Your task to perform on an android device: delete the emails in spam in the gmail app Image 0: 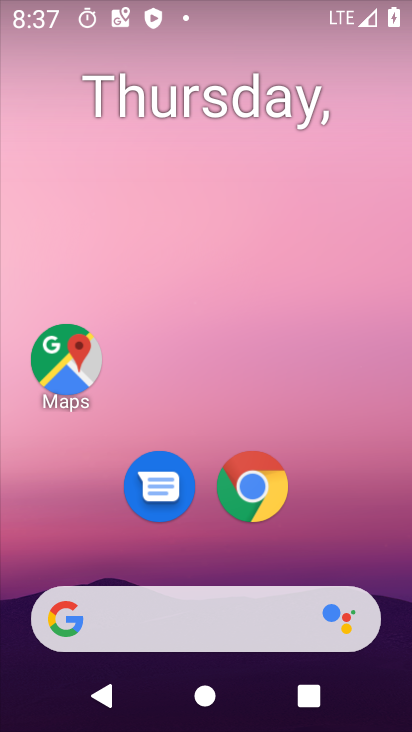
Step 0: drag from (247, 123) to (264, 69)
Your task to perform on an android device: delete the emails in spam in the gmail app Image 1: 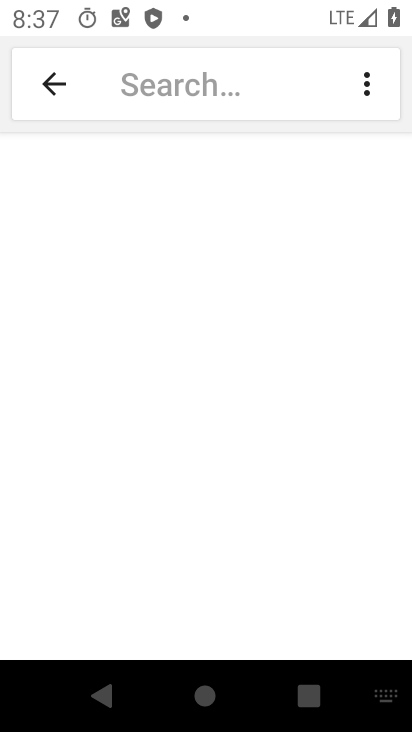
Step 1: press home button
Your task to perform on an android device: delete the emails in spam in the gmail app Image 2: 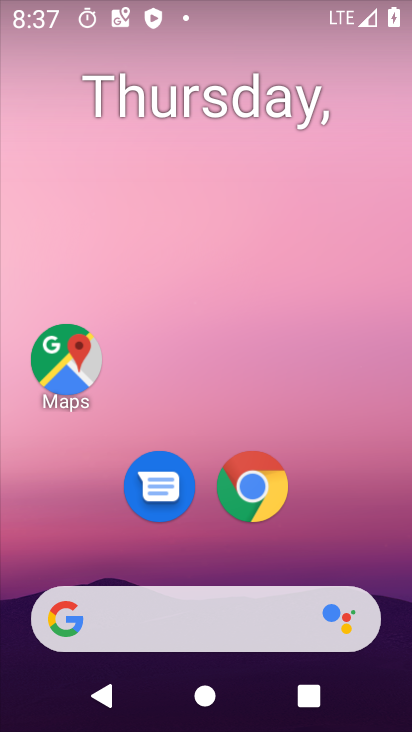
Step 2: drag from (214, 549) to (292, 112)
Your task to perform on an android device: delete the emails in spam in the gmail app Image 3: 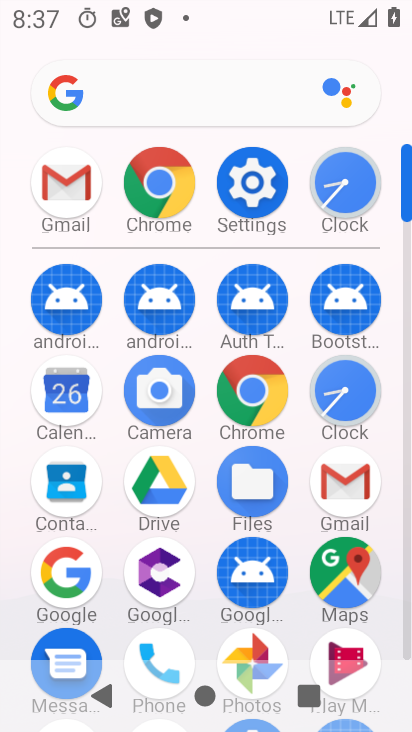
Step 3: click (362, 475)
Your task to perform on an android device: delete the emails in spam in the gmail app Image 4: 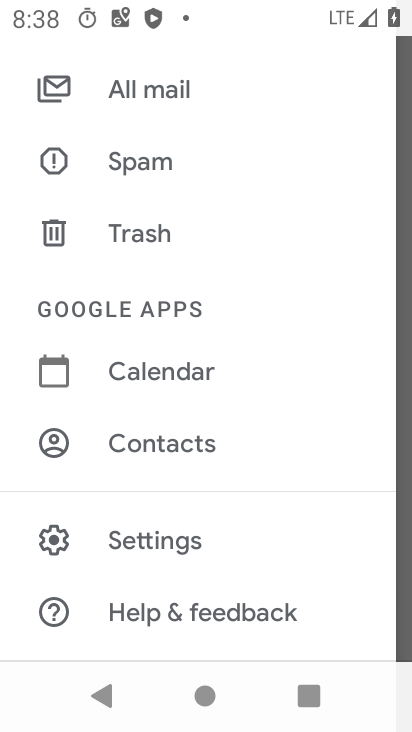
Step 4: press home button
Your task to perform on an android device: delete the emails in spam in the gmail app Image 5: 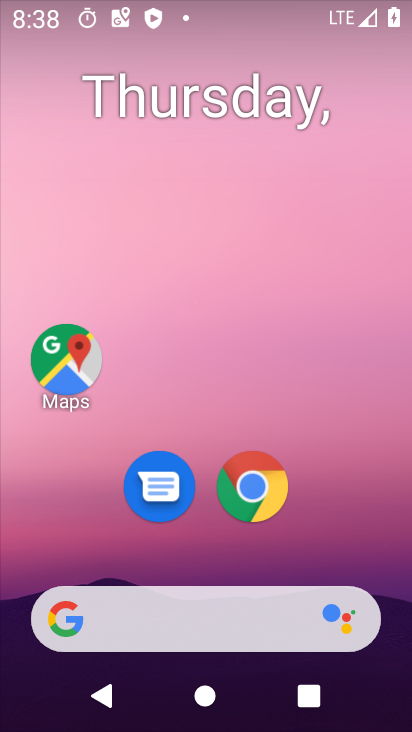
Step 5: drag from (186, 593) to (229, 125)
Your task to perform on an android device: delete the emails in spam in the gmail app Image 6: 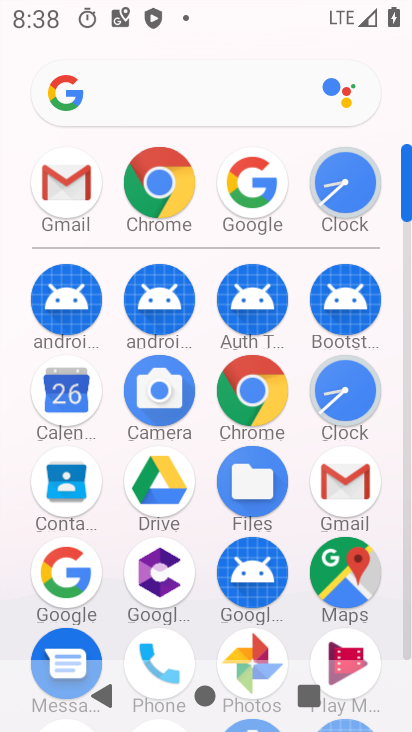
Step 6: click (356, 482)
Your task to perform on an android device: delete the emails in spam in the gmail app Image 7: 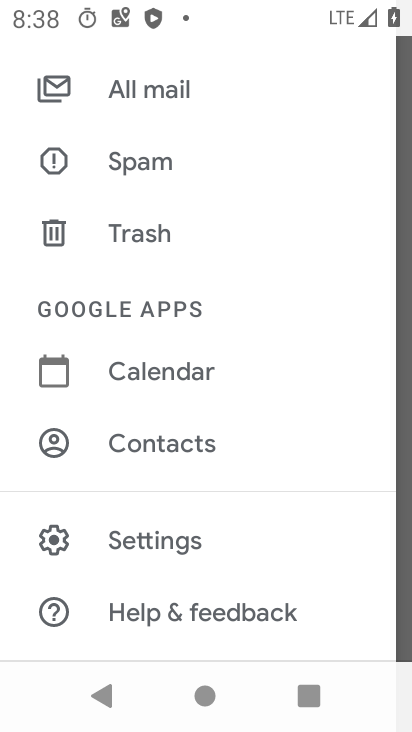
Step 7: click (234, 101)
Your task to perform on an android device: delete the emails in spam in the gmail app Image 8: 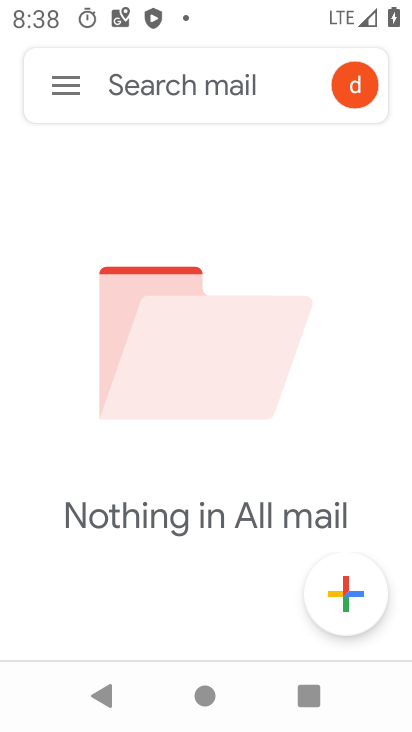
Step 8: click (76, 84)
Your task to perform on an android device: delete the emails in spam in the gmail app Image 9: 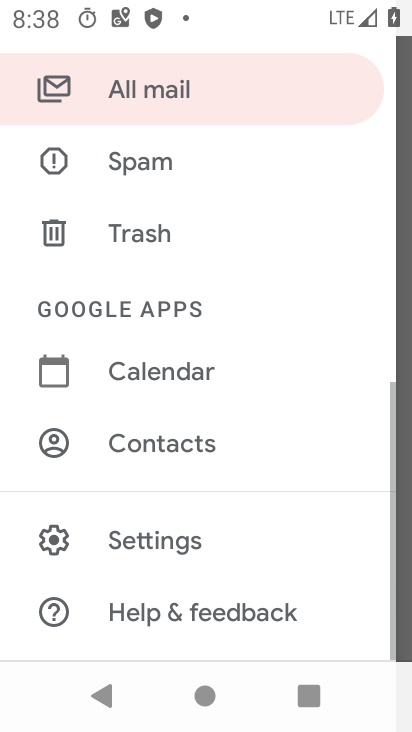
Step 9: click (130, 157)
Your task to perform on an android device: delete the emails in spam in the gmail app Image 10: 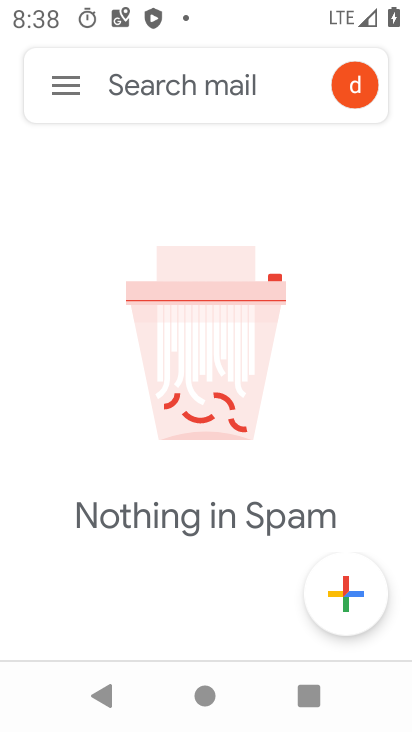
Step 10: task complete